Your task to perform on an android device: remove spam from my inbox in the gmail app Image 0: 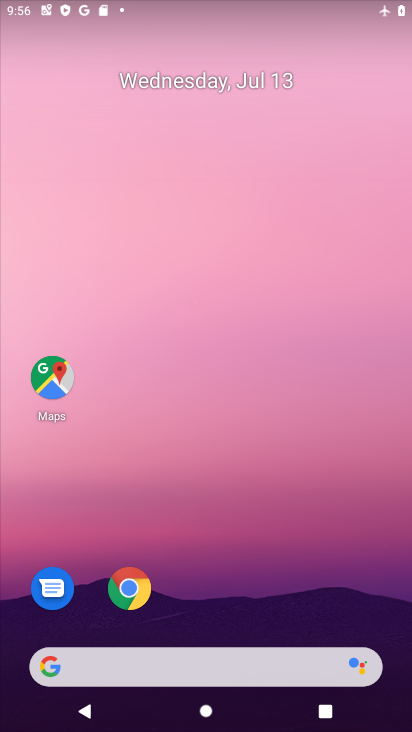
Step 0: press home button
Your task to perform on an android device: remove spam from my inbox in the gmail app Image 1: 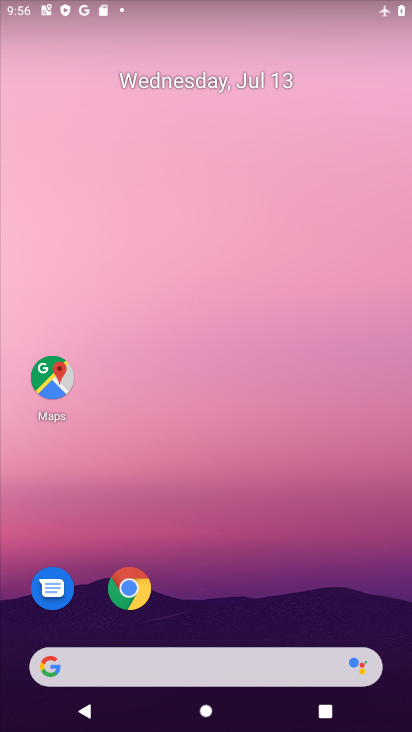
Step 1: drag from (229, 595) to (264, 87)
Your task to perform on an android device: remove spam from my inbox in the gmail app Image 2: 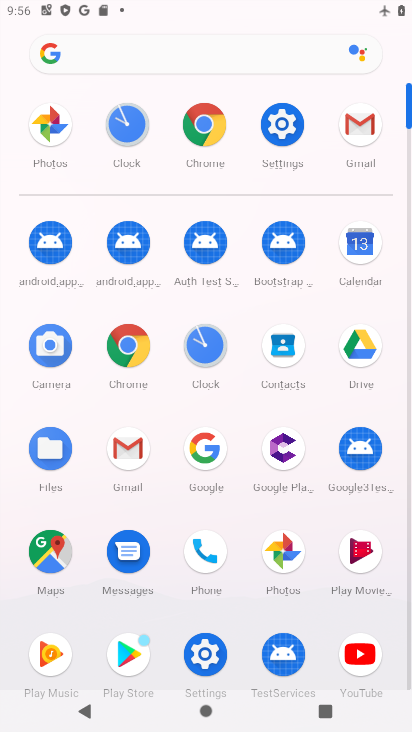
Step 2: click (127, 448)
Your task to perform on an android device: remove spam from my inbox in the gmail app Image 3: 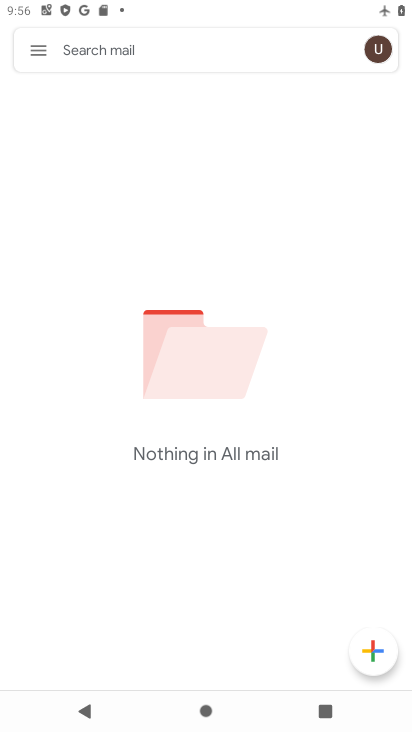
Step 3: click (38, 58)
Your task to perform on an android device: remove spam from my inbox in the gmail app Image 4: 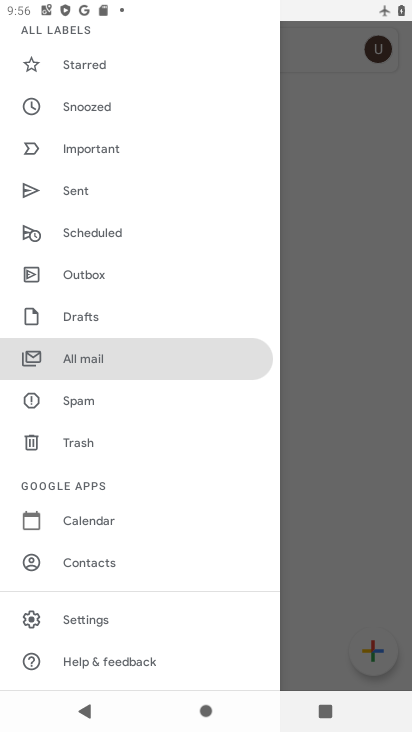
Step 4: drag from (148, 181) to (158, 446)
Your task to perform on an android device: remove spam from my inbox in the gmail app Image 5: 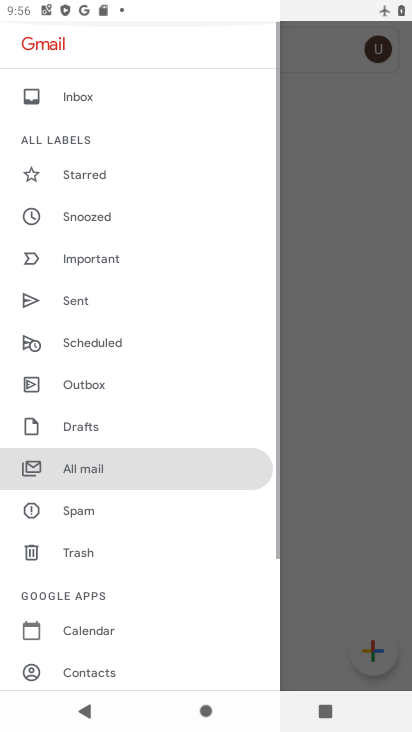
Step 5: click (72, 92)
Your task to perform on an android device: remove spam from my inbox in the gmail app Image 6: 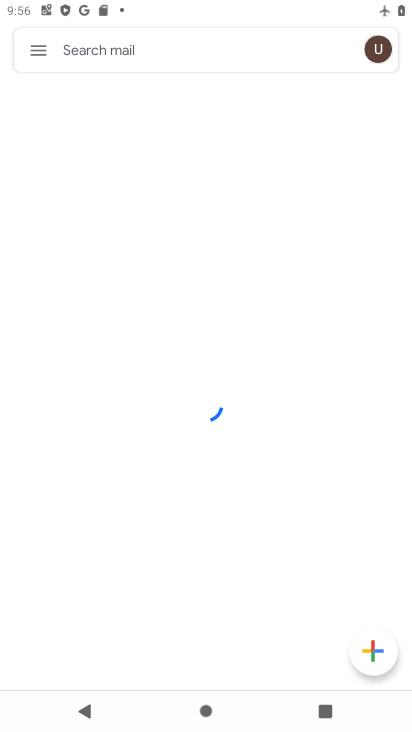
Step 6: task complete